Your task to perform on an android device: Go to internet settings Image 0: 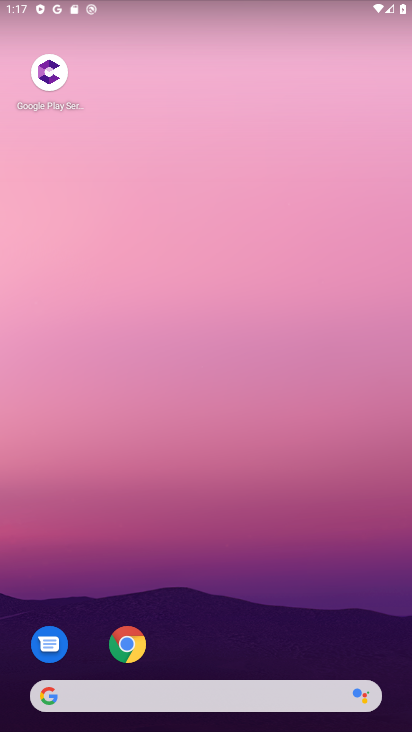
Step 0: drag from (177, 657) to (168, 116)
Your task to perform on an android device: Go to internet settings Image 1: 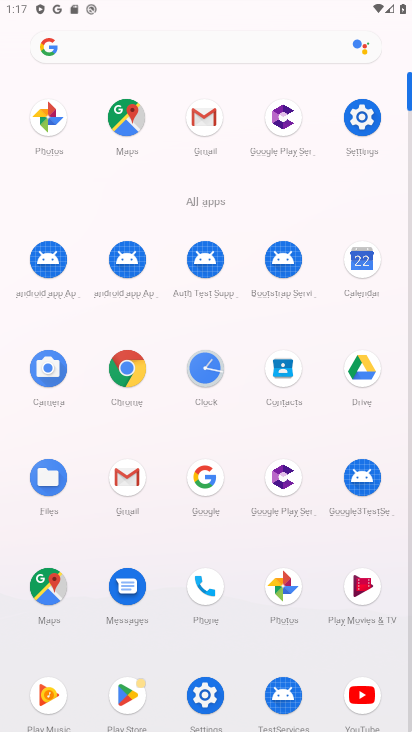
Step 1: click (361, 120)
Your task to perform on an android device: Go to internet settings Image 2: 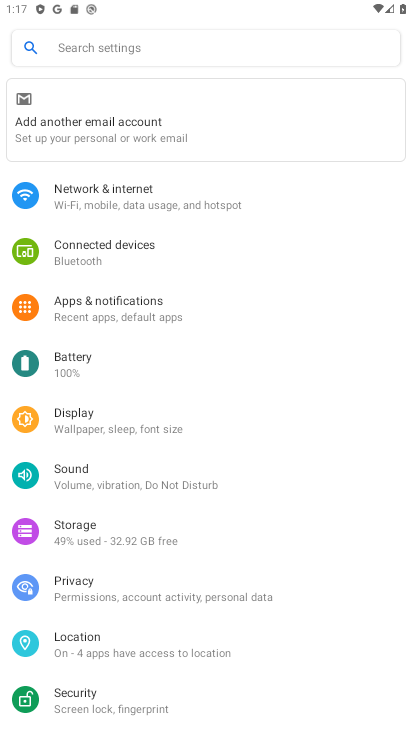
Step 2: click (114, 195)
Your task to perform on an android device: Go to internet settings Image 3: 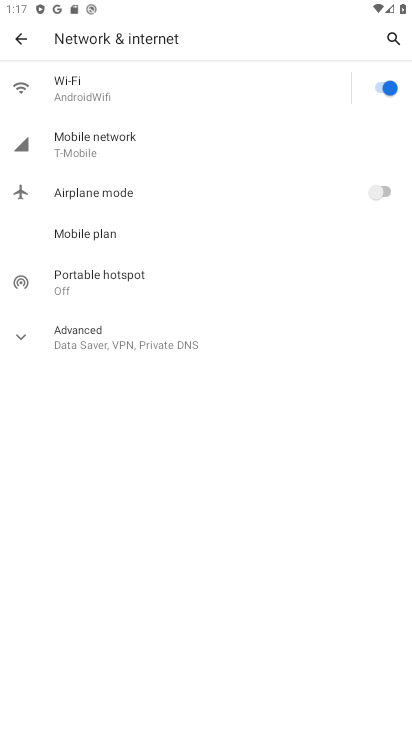
Step 3: click (117, 90)
Your task to perform on an android device: Go to internet settings Image 4: 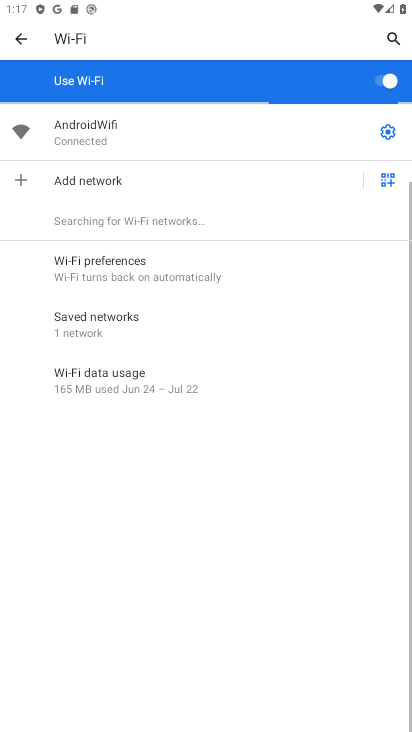
Step 4: click (121, 137)
Your task to perform on an android device: Go to internet settings Image 5: 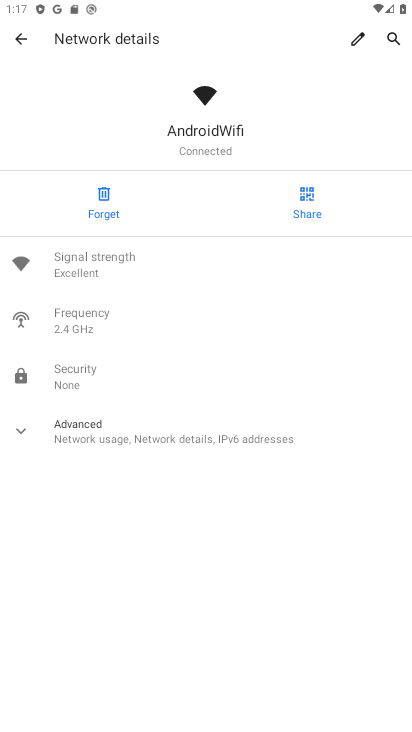
Step 5: task complete